Your task to perform on an android device: Turn off the flashlight Image 0: 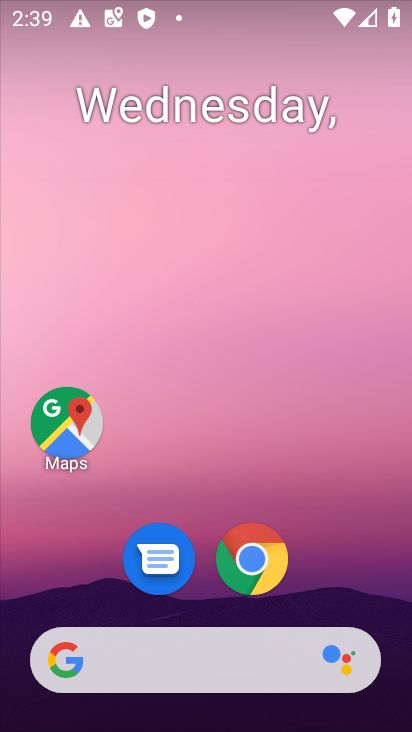
Step 0: drag from (201, 617) to (222, 19)
Your task to perform on an android device: Turn off the flashlight Image 1: 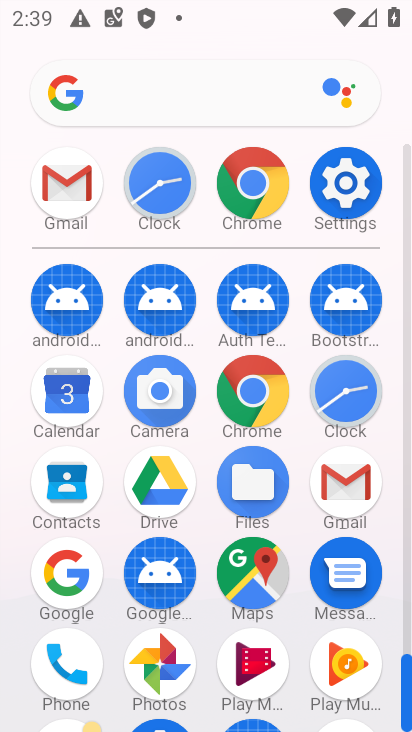
Step 1: click (349, 169)
Your task to perform on an android device: Turn off the flashlight Image 2: 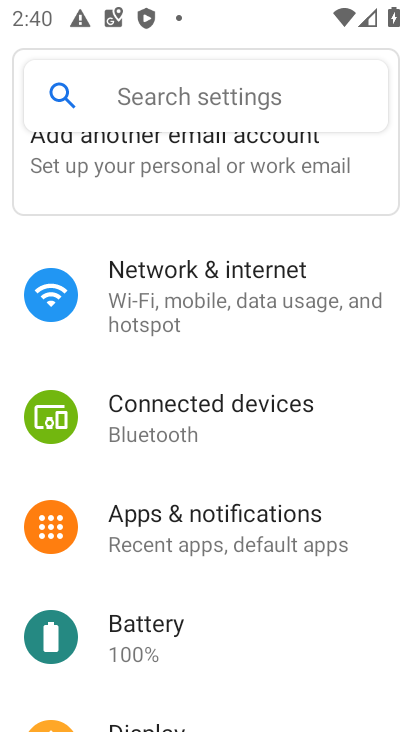
Step 2: task complete